Your task to perform on an android device: find photos in the google photos app Image 0: 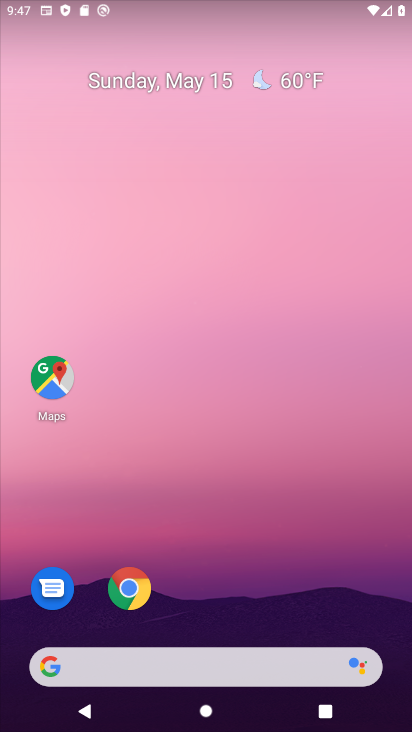
Step 0: drag from (225, 630) to (277, 214)
Your task to perform on an android device: find photos in the google photos app Image 1: 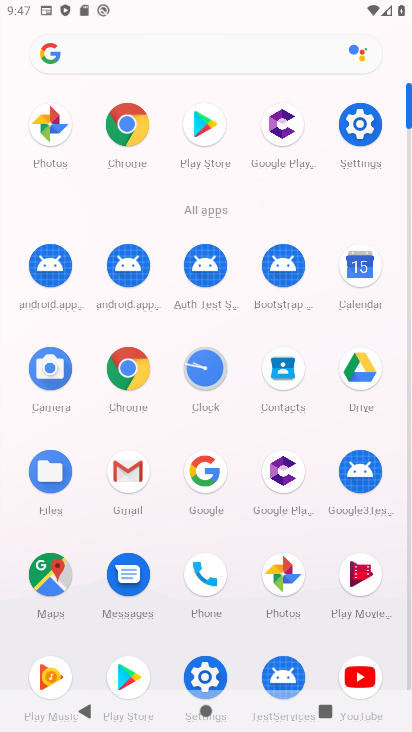
Step 1: click (53, 131)
Your task to perform on an android device: find photos in the google photos app Image 2: 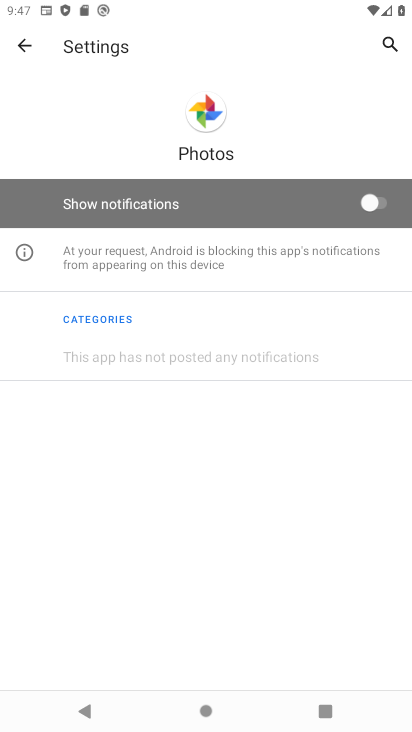
Step 2: click (27, 48)
Your task to perform on an android device: find photos in the google photos app Image 3: 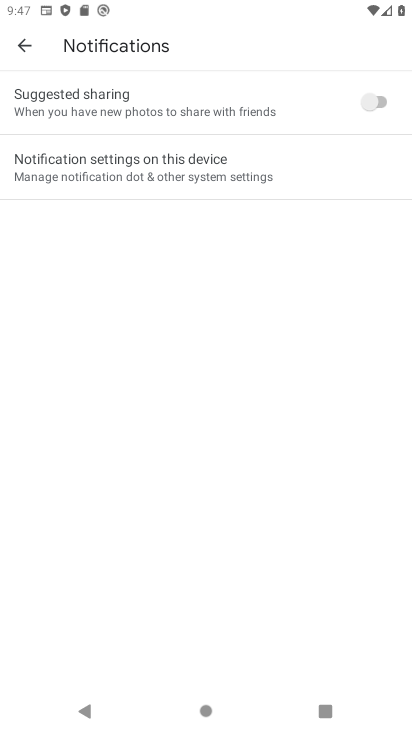
Step 3: click (27, 48)
Your task to perform on an android device: find photos in the google photos app Image 4: 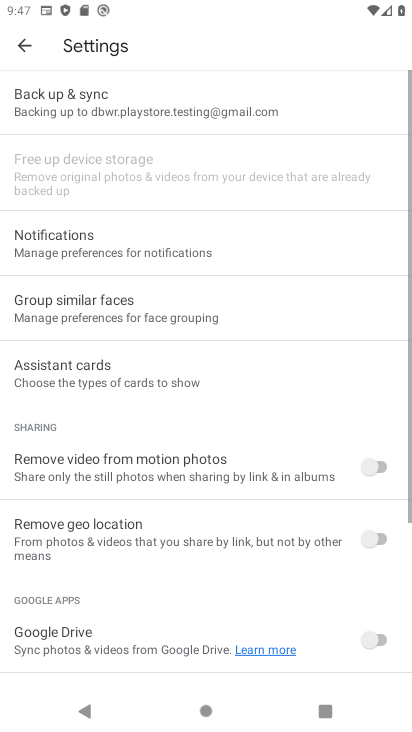
Step 4: click (27, 48)
Your task to perform on an android device: find photos in the google photos app Image 5: 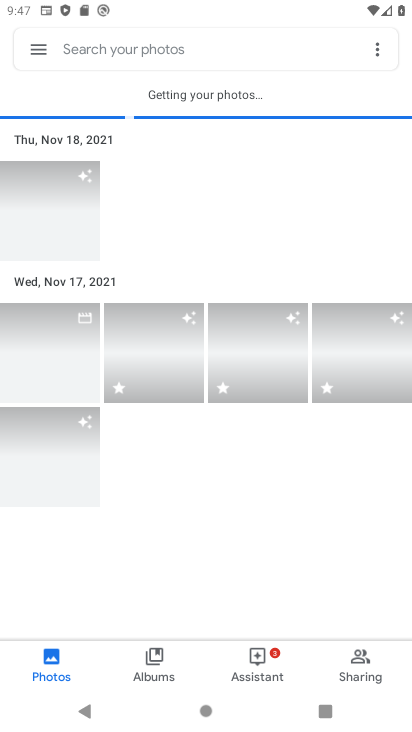
Step 5: click (27, 48)
Your task to perform on an android device: find photos in the google photos app Image 6: 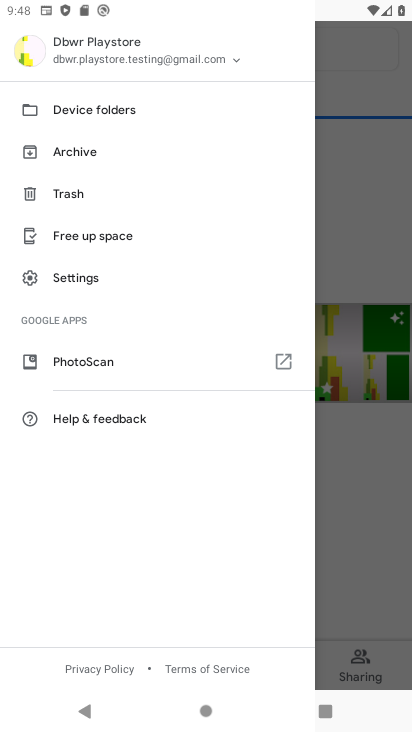
Step 6: click (373, 239)
Your task to perform on an android device: find photos in the google photos app Image 7: 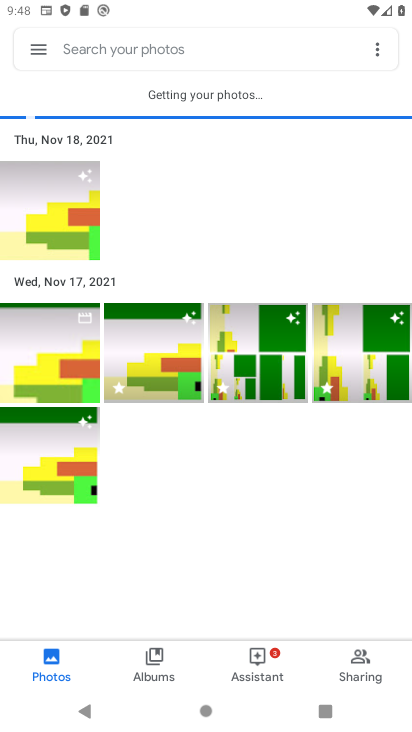
Step 7: task complete